Your task to perform on an android device: Open accessibility settings Image 0: 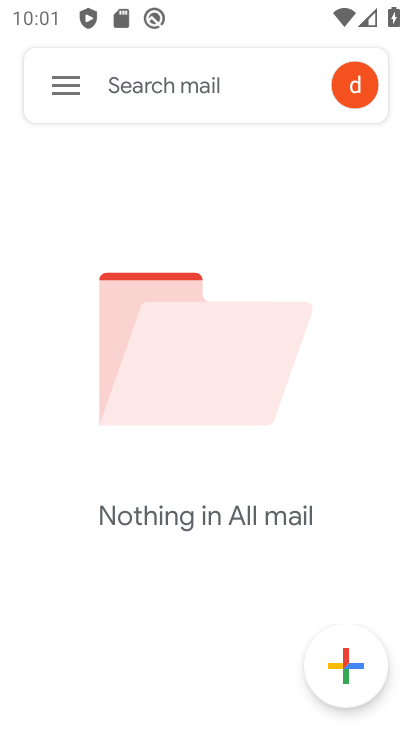
Step 0: press home button
Your task to perform on an android device: Open accessibility settings Image 1: 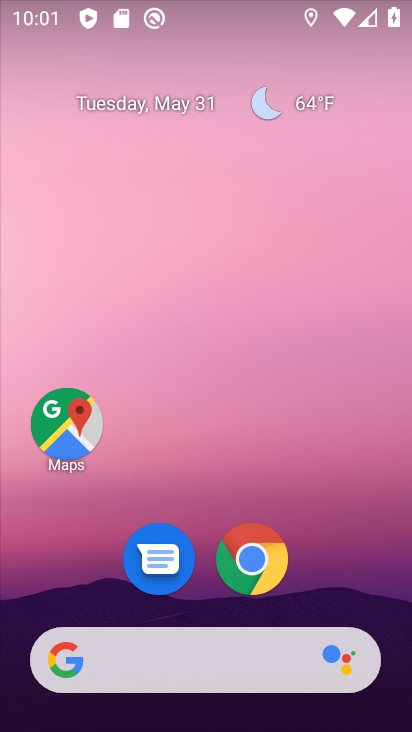
Step 1: drag from (84, 618) to (204, 31)
Your task to perform on an android device: Open accessibility settings Image 2: 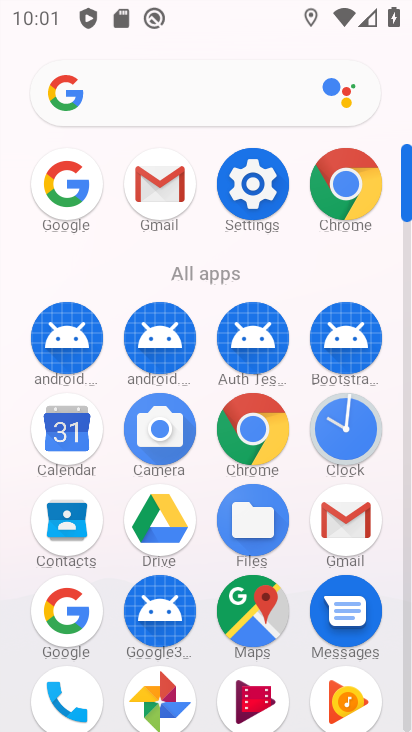
Step 2: drag from (213, 582) to (265, 230)
Your task to perform on an android device: Open accessibility settings Image 3: 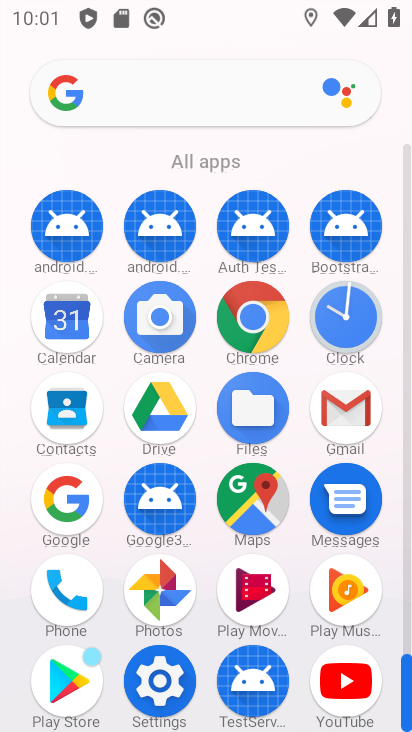
Step 3: click (154, 699)
Your task to perform on an android device: Open accessibility settings Image 4: 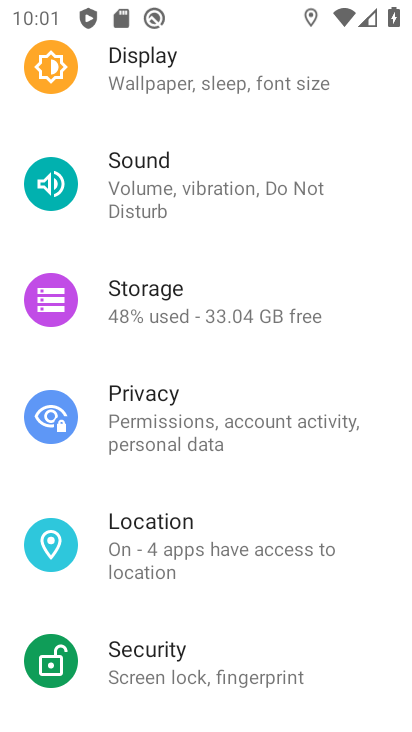
Step 4: drag from (131, 713) to (280, 209)
Your task to perform on an android device: Open accessibility settings Image 5: 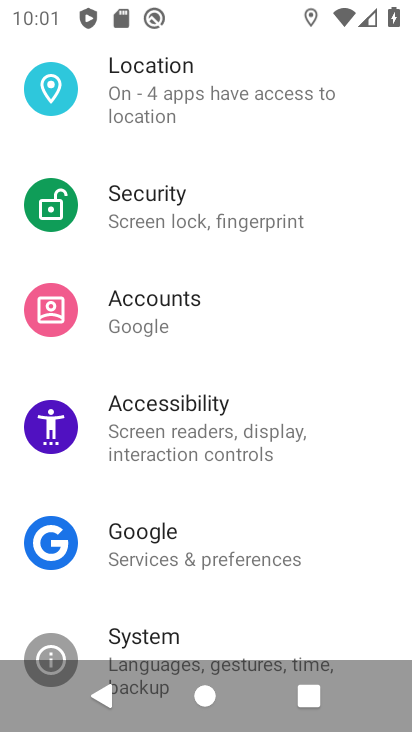
Step 5: click (193, 447)
Your task to perform on an android device: Open accessibility settings Image 6: 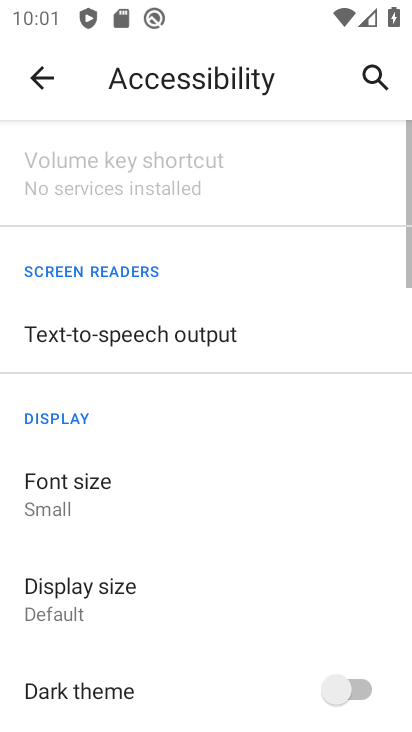
Step 6: task complete